Your task to perform on an android device: Open the Play Movies app and select the watchlist tab. Image 0: 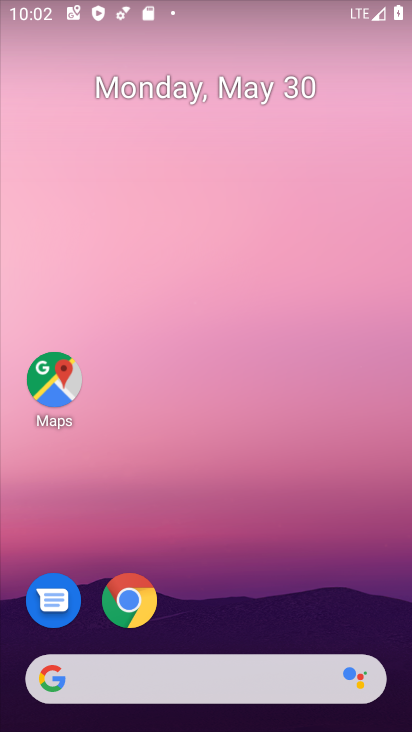
Step 0: drag from (277, 637) to (224, 191)
Your task to perform on an android device: Open the Play Movies app and select the watchlist tab. Image 1: 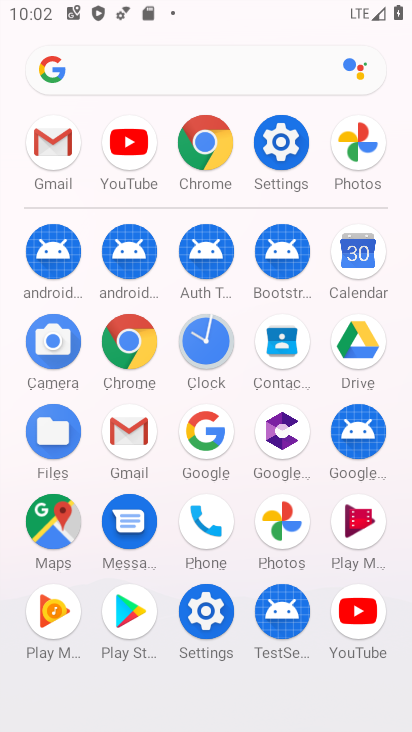
Step 1: click (351, 521)
Your task to perform on an android device: Open the Play Movies app and select the watchlist tab. Image 2: 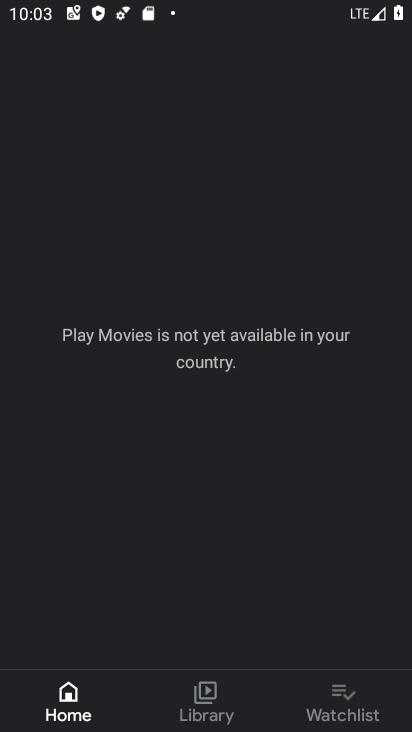
Step 2: click (339, 703)
Your task to perform on an android device: Open the Play Movies app and select the watchlist tab. Image 3: 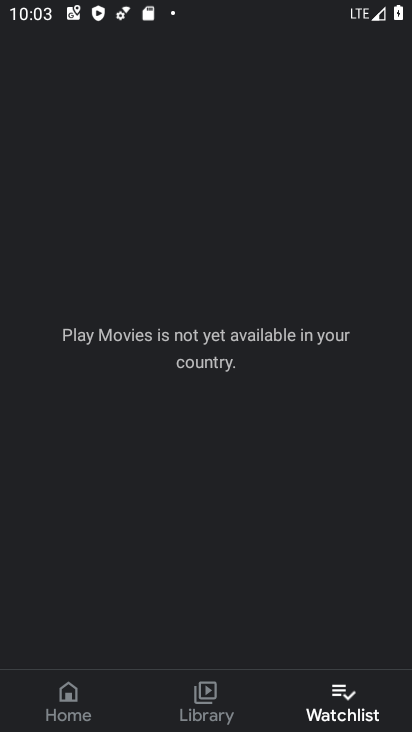
Step 3: task complete